Your task to perform on an android device: Turn off the flashlight Image 0: 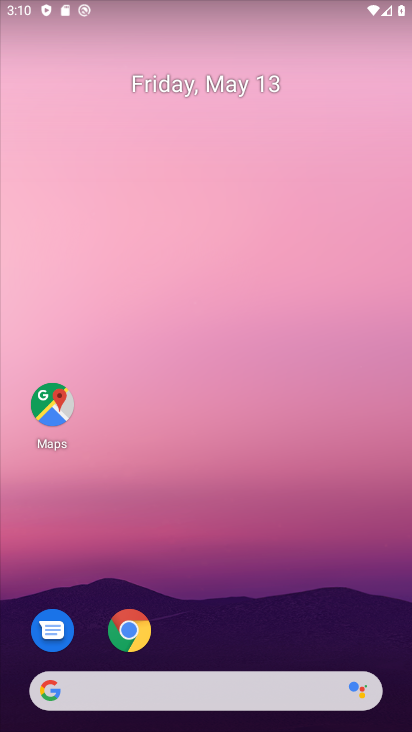
Step 0: drag from (235, 669) to (247, 73)
Your task to perform on an android device: Turn off the flashlight Image 1: 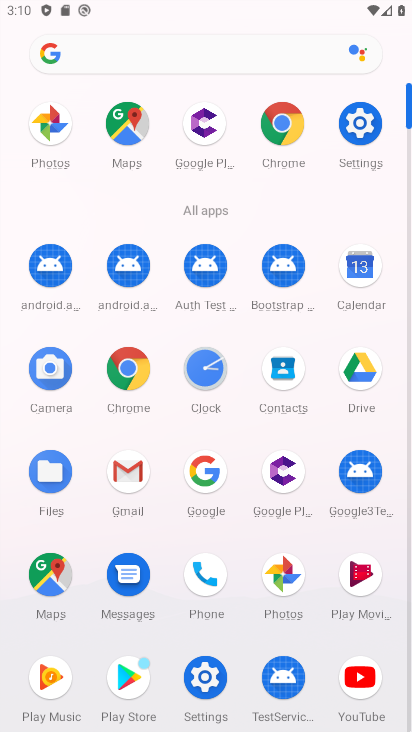
Step 1: click (358, 114)
Your task to perform on an android device: Turn off the flashlight Image 2: 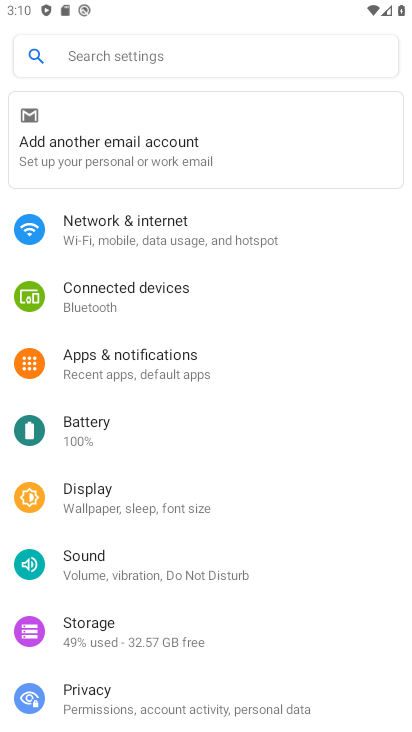
Step 2: click (139, 61)
Your task to perform on an android device: Turn off the flashlight Image 3: 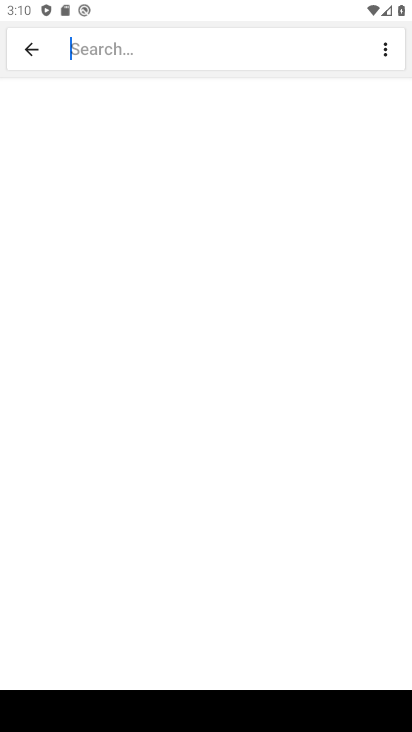
Step 3: type "flashlight"
Your task to perform on an android device: Turn off the flashlight Image 4: 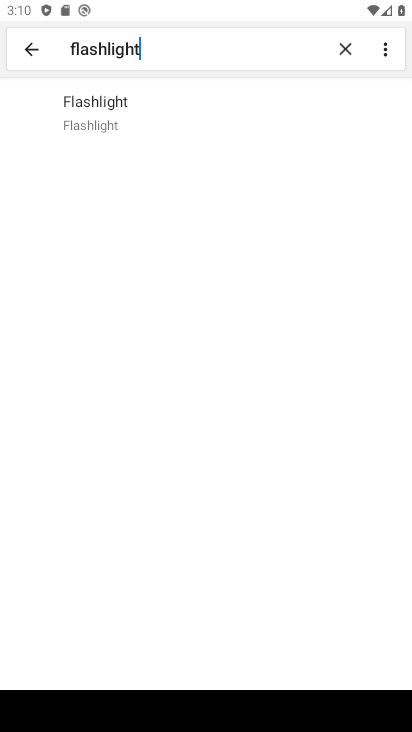
Step 4: task complete